Your task to perform on an android device: Go to Google Image 0: 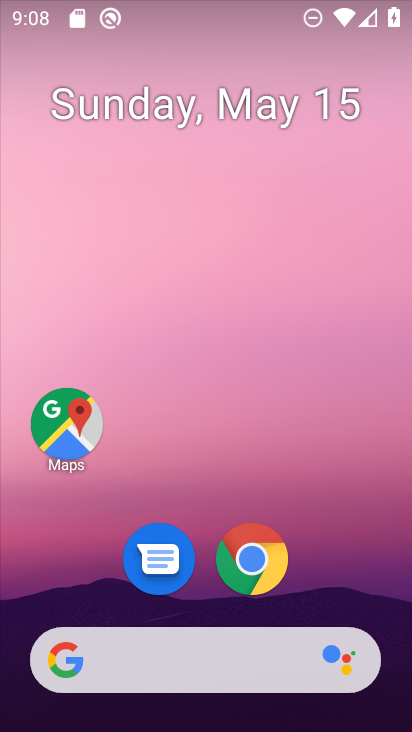
Step 0: click (256, 579)
Your task to perform on an android device: Go to Google Image 1: 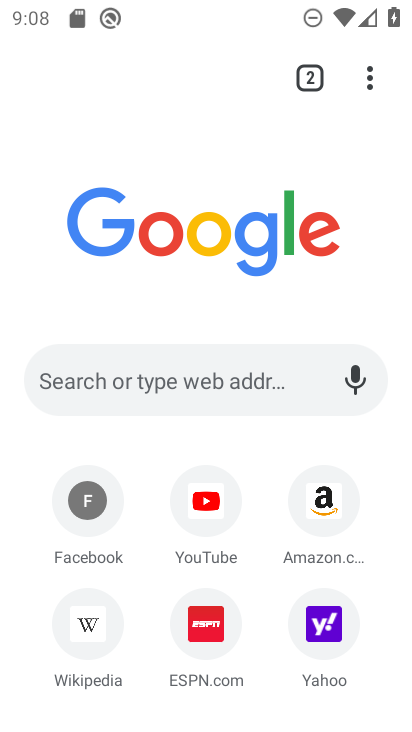
Step 1: click (175, 377)
Your task to perform on an android device: Go to Google Image 2: 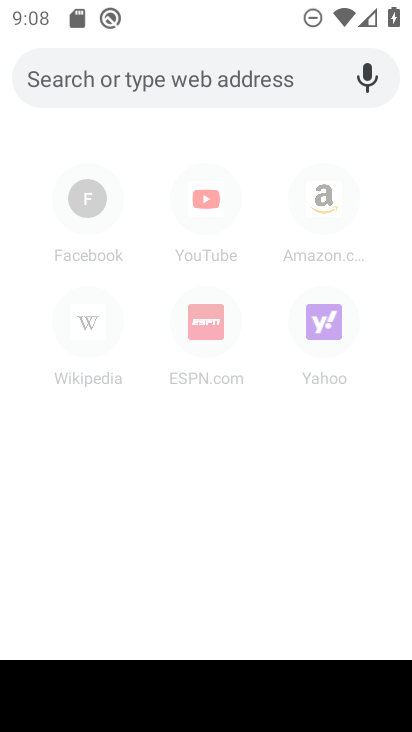
Step 2: type "google.com"
Your task to perform on an android device: Go to Google Image 3: 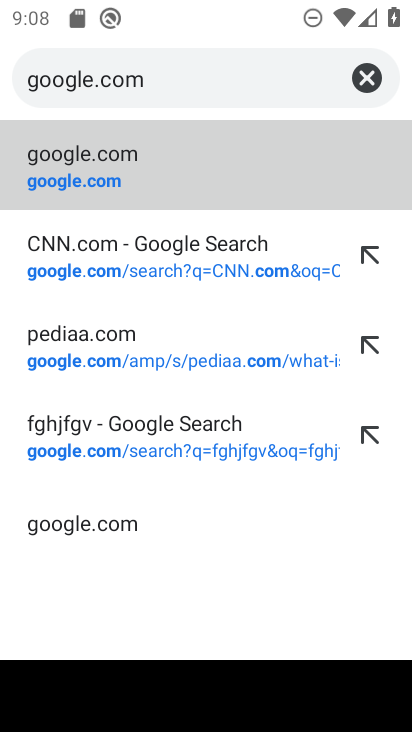
Step 3: click (108, 180)
Your task to perform on an android device: Go to Google Image 4: 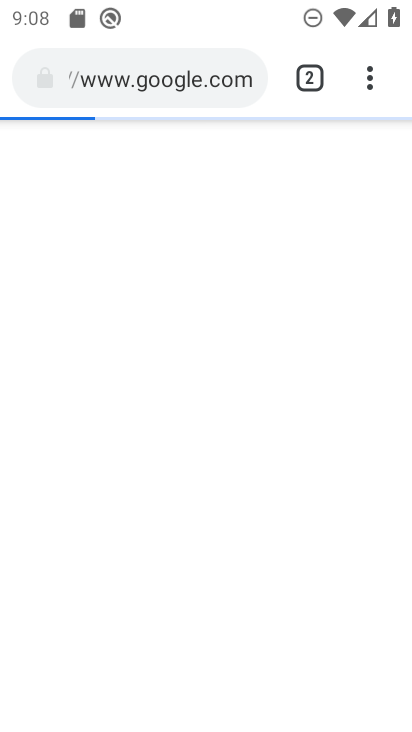
Step 4: task complete